Your task to perform on an android device: turn on wifi Image 0: 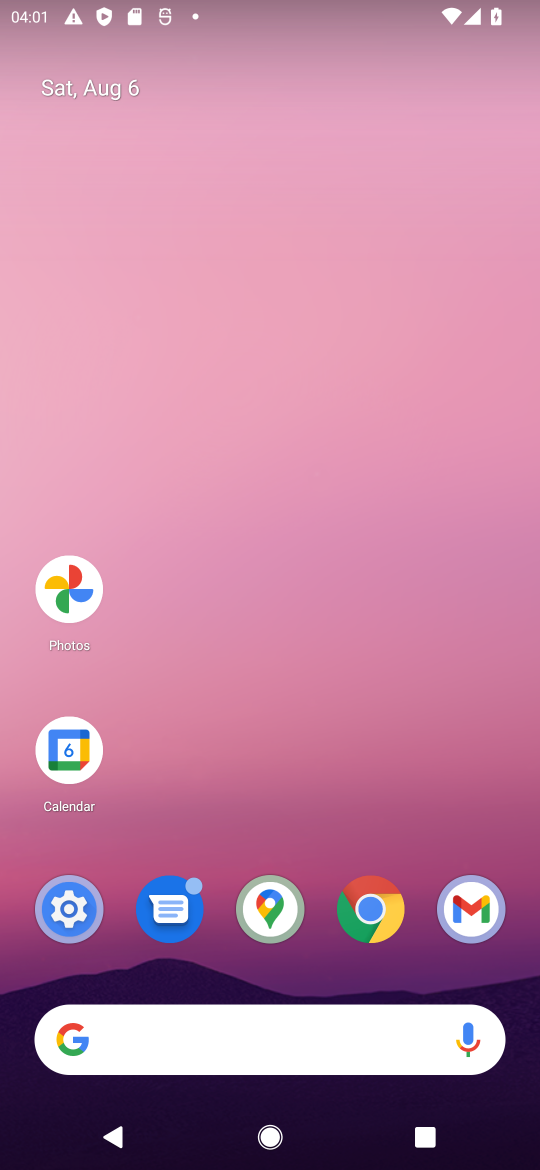
Step 0: click (64, 920)
Your task to perform on an android device: turn on wifi Image 1: 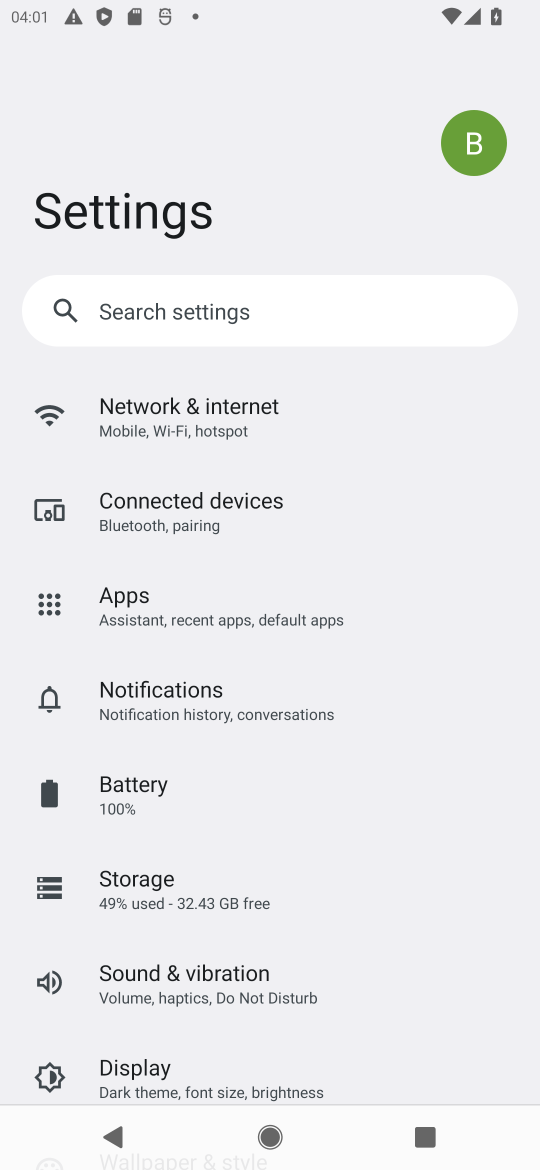
Step 1: click (166, 402)
Your task to perform on an android device: turn on wifi Image 2: 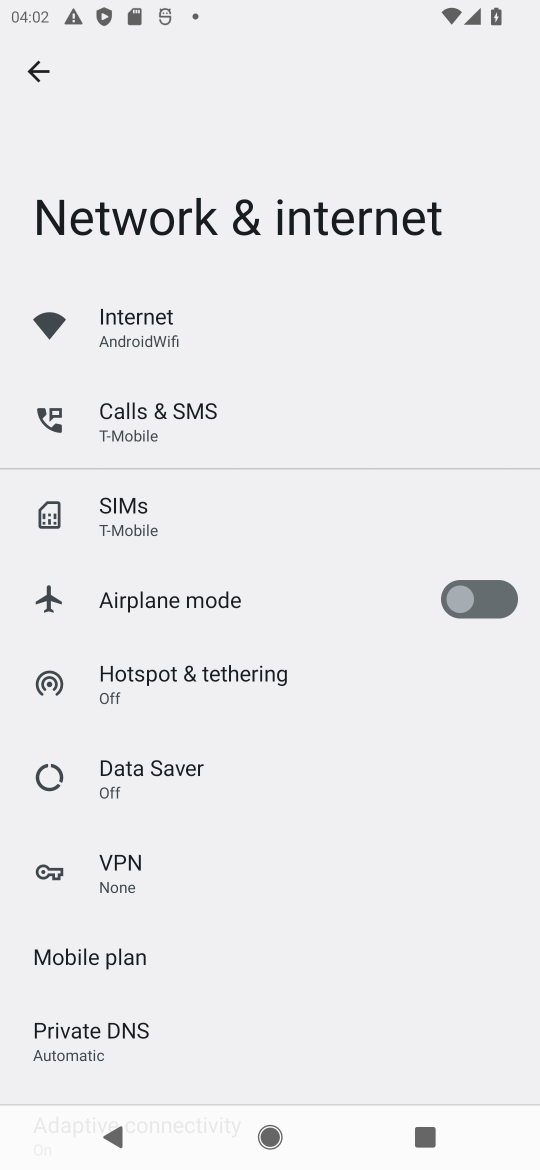
Step 2: click (136, 313)
Your task to perform on an android device: turn on wifi Image 3: 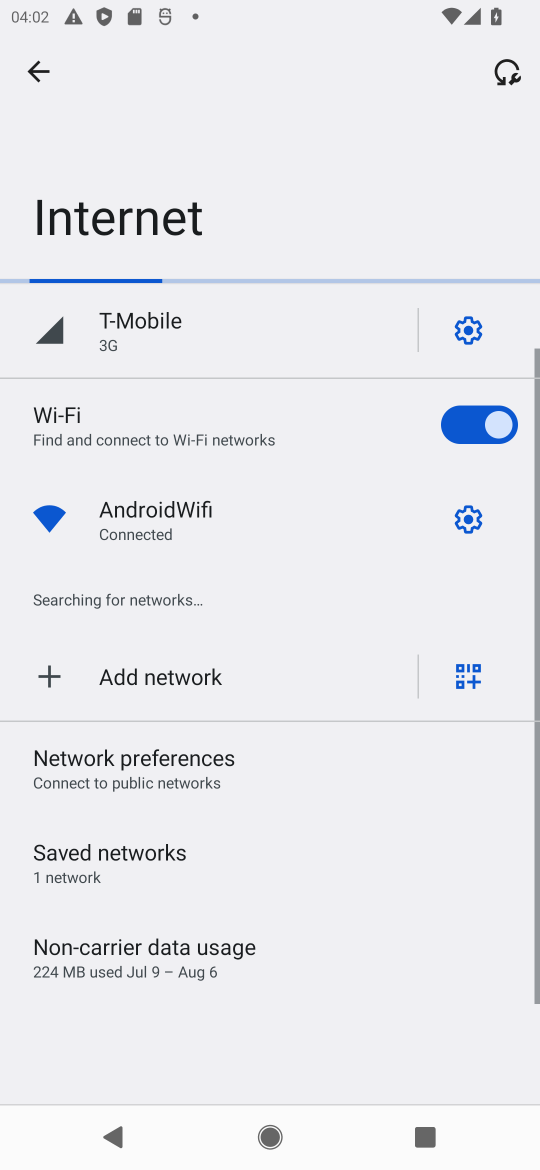
Step 3: task complete